Your task to perform on an android device: toggle sleep mode Image 0: 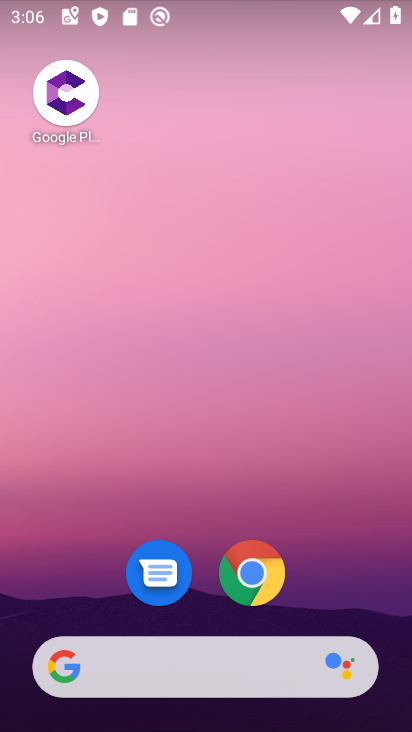
Step 0: drag from (204, 16) to (147, 615)
Your task to perform on an android device: toggle sleep mode Image 1: 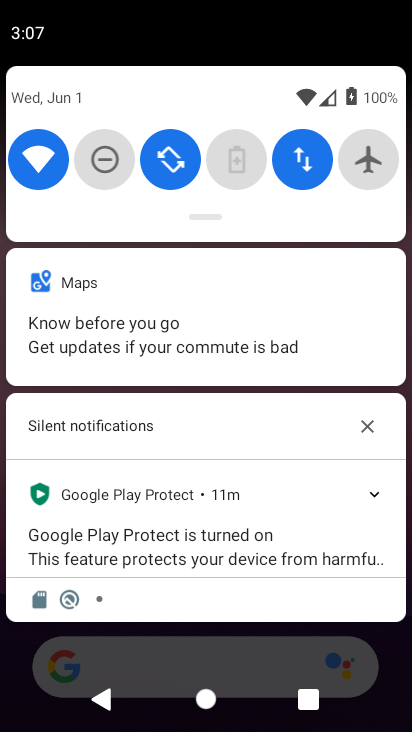
Step 1: task complete